Your task to perform on an android device: manage bookmarks in the chrome app Image 0: 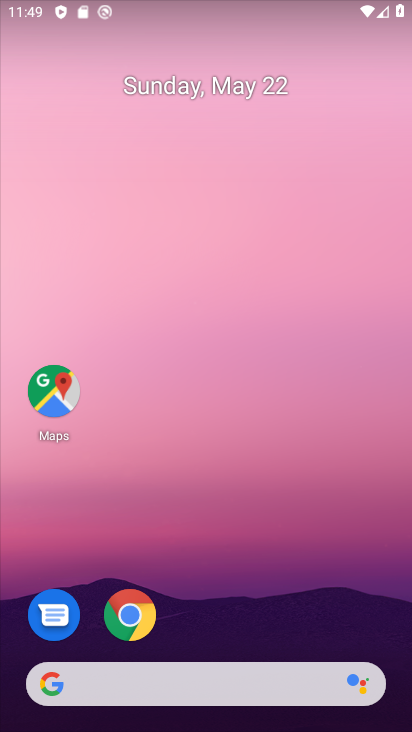
Step 0: click (151, 608)
Your task to perform on an android device: manage bookmarks in the chrome app Image 1: 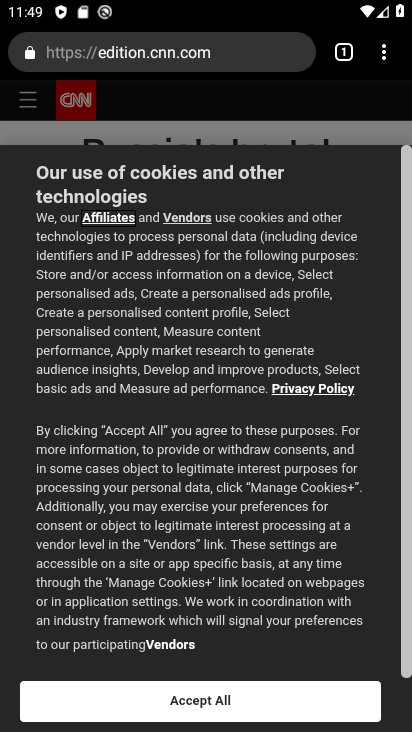
Step 1: task complete